Your task to perform on an android device: Open Amazon Image 0: 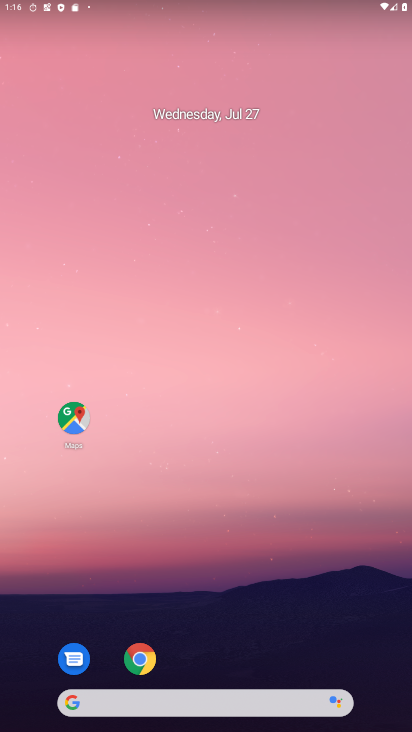
Step 0: press home button
Your task to perform on an android device: Open Amazon Image 1: 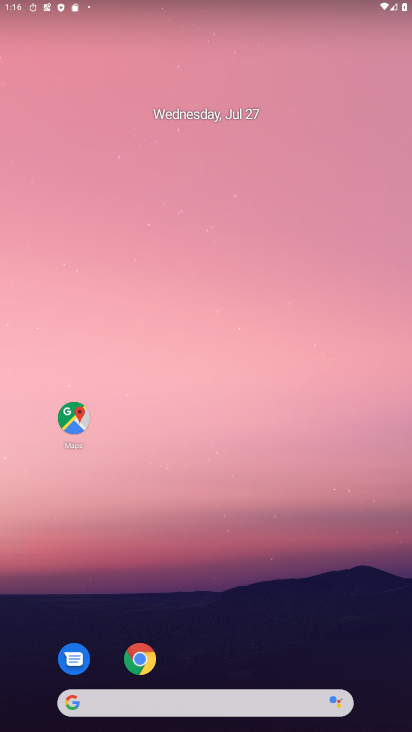
Step 1: click (136, 653)
Your task to perform on an android device: Open Amazon Image 2: 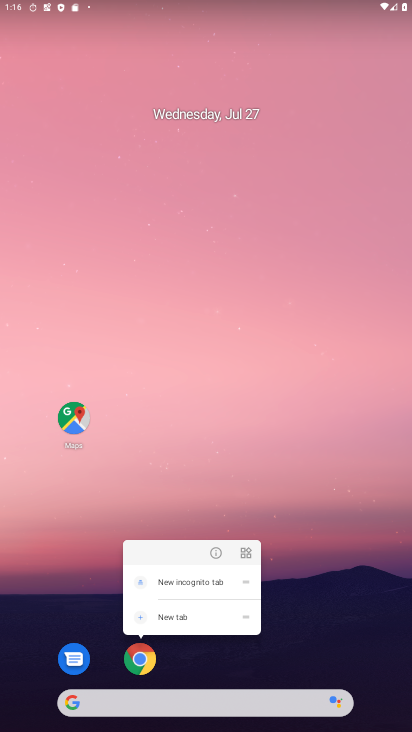
Step 2: click (139, 658)
Your task to perform on an android device: Open Amazon Image 3: 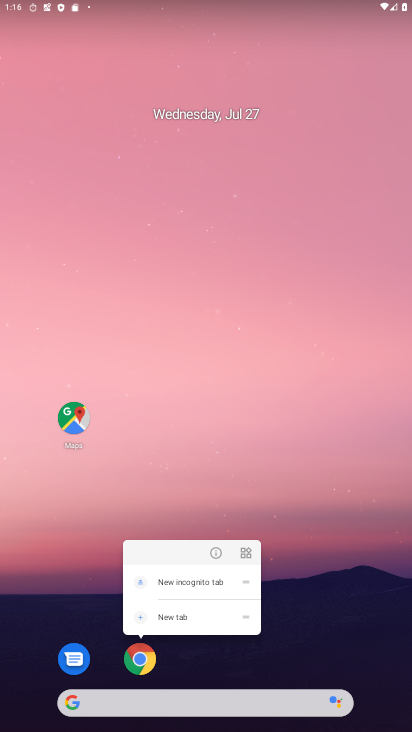
Step 3: click (317, 475)
Your task to perform on an android device: Open Amazon Image 4: 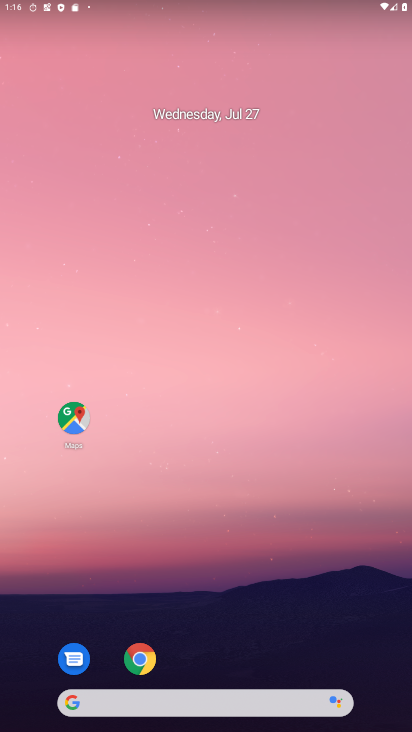
Step 4: drag from (287, 665) to (304, 73)
Your task to perform on an android device: Open Amazon Image 5: 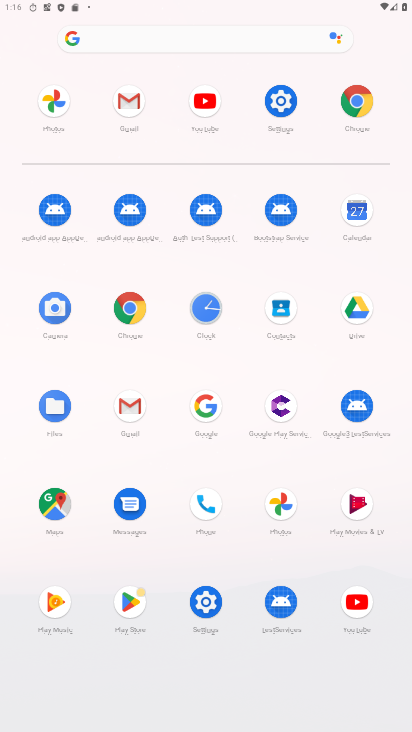
Step 5: click (356, 95)
Your task to perform on an android device: Open Amazon Image 6: 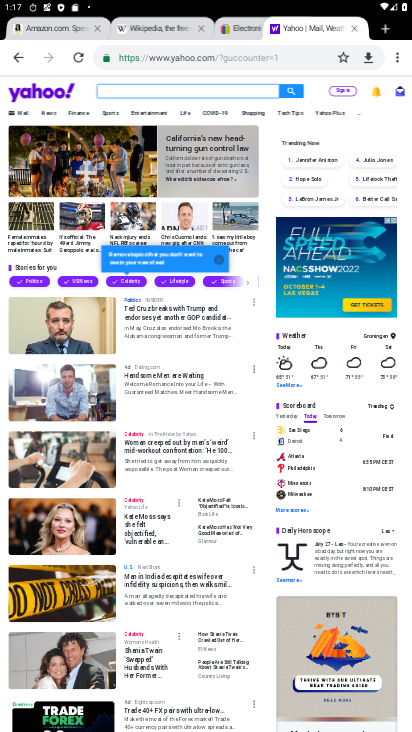
Step 6: click (41, 26)
Your task to perform on an android device: Open Amazon Image 7: 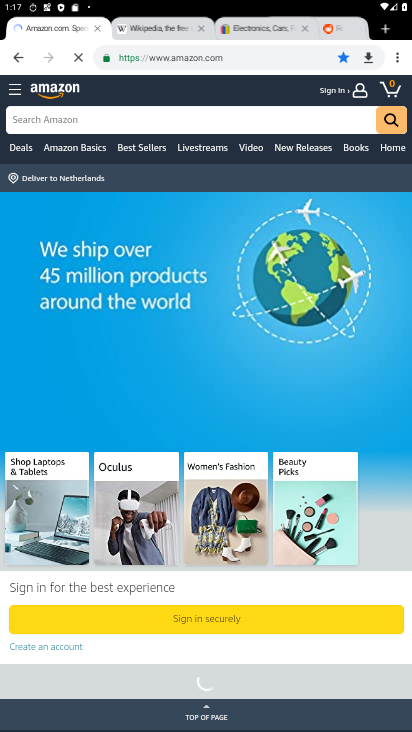
Step 7: task complete